Your task to perform on an android device: Open the calendar app, open the side menu, and click the "Day" option Image 0: 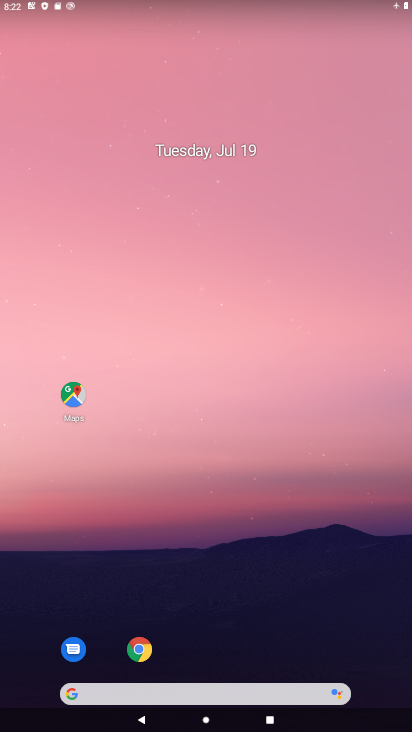
Step 0: drag from (219, 656) to (286, 8)
Your task to perform on an android device: Open the calendar app, open the side menu, and click the "Day" option Image 1: 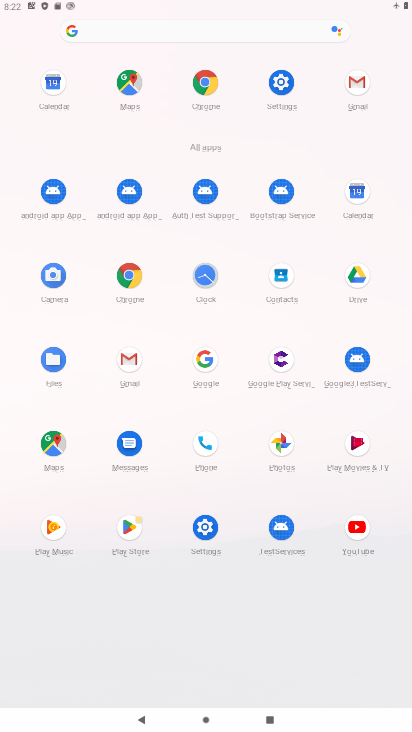
Step 1: click (356, 191)
Your task to perform on an android device: Open the calendar app, open the side menu, and click the "Day" option Image 2: 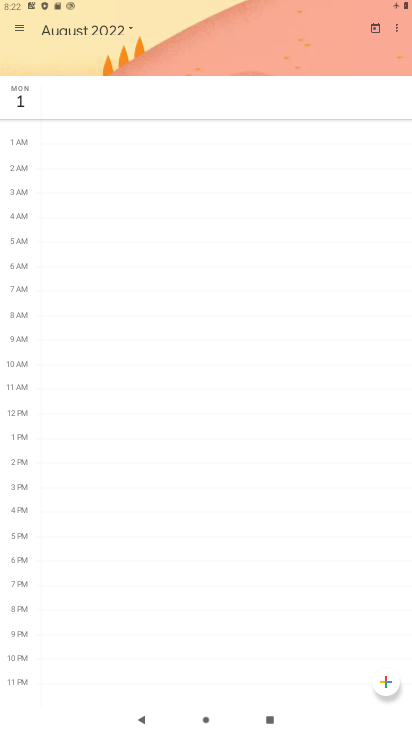
Step 2: click (22, 23)
Your task to perform on an android device: Open the calendar app, open the side menu, and click the "Day" option Image 3: 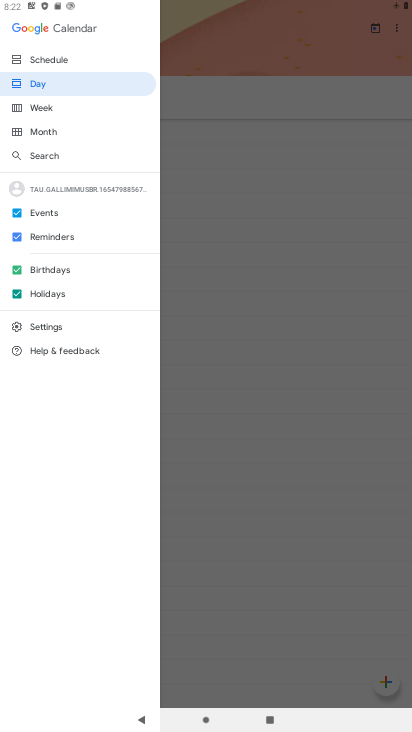
Step 3: click (42, 86)
Your task to perform on an android device: Open the calendar app, open the side menu, and click the "Day" option Image 4: 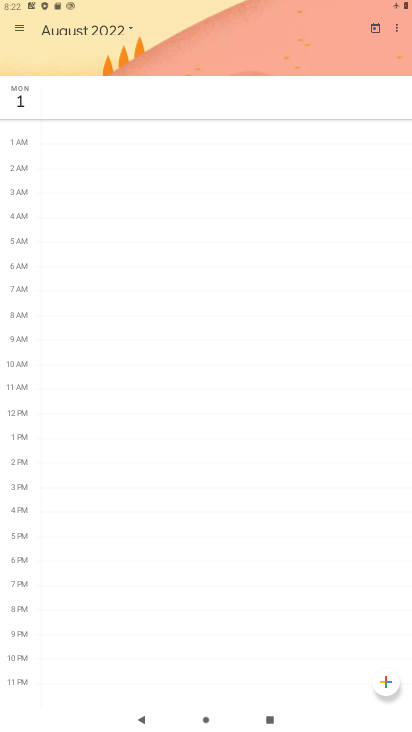
Step 4: task complete